Your task to perform on an android device: Open the map Image 0: 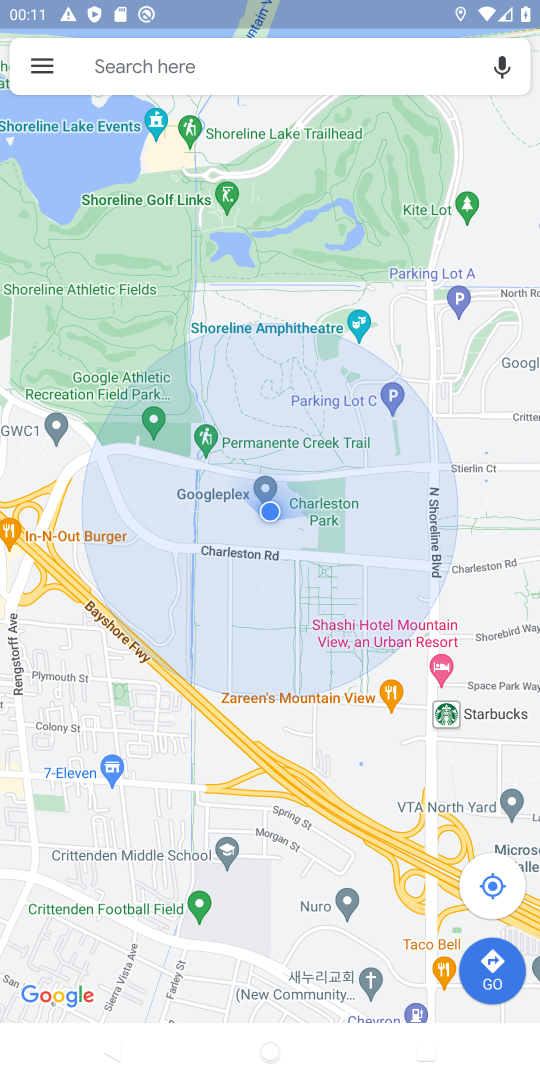
Step 0: task complete